Your task to perform on an android device: Search for the new Air Jordan 13 on Nike.com Image 0: 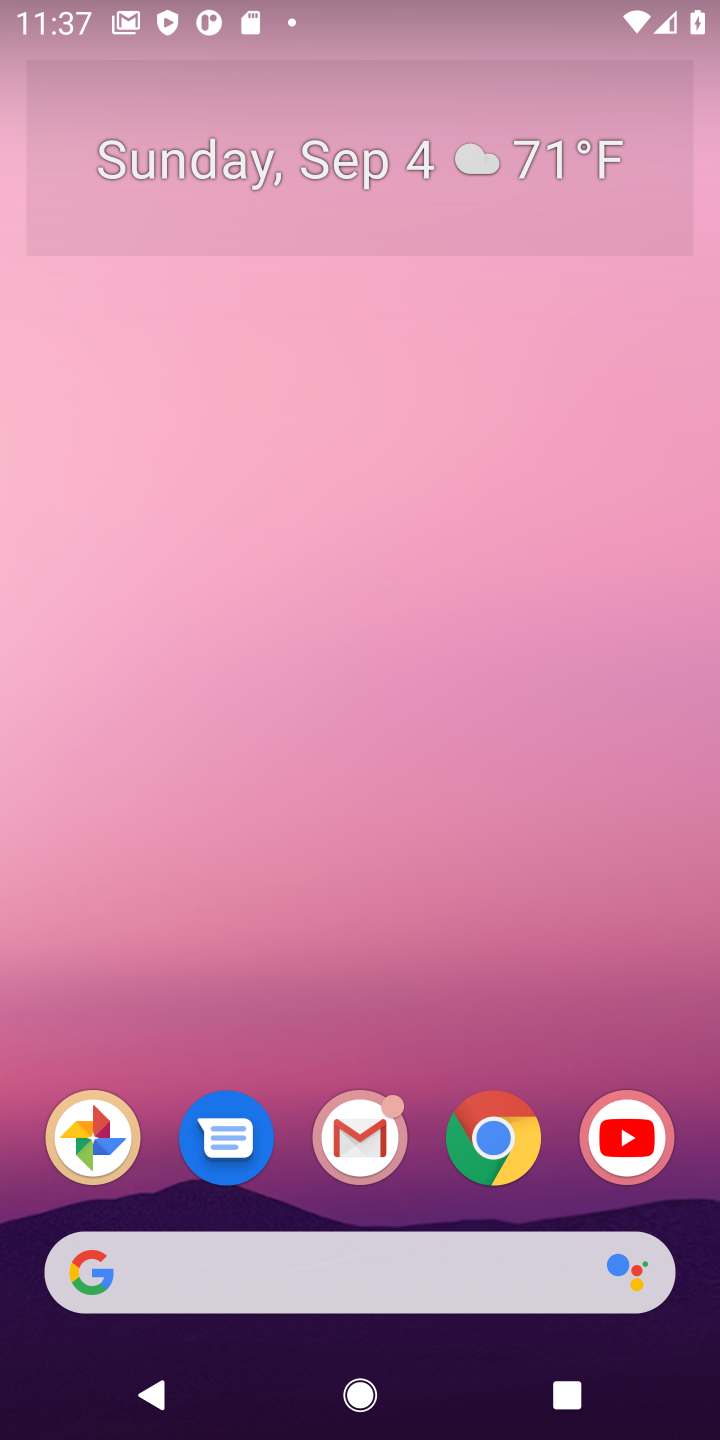
Step 0: click (483, 1146)
Your task to perform on an android device: Search for the new Air Jordan 13 on Nike.com Image 1: 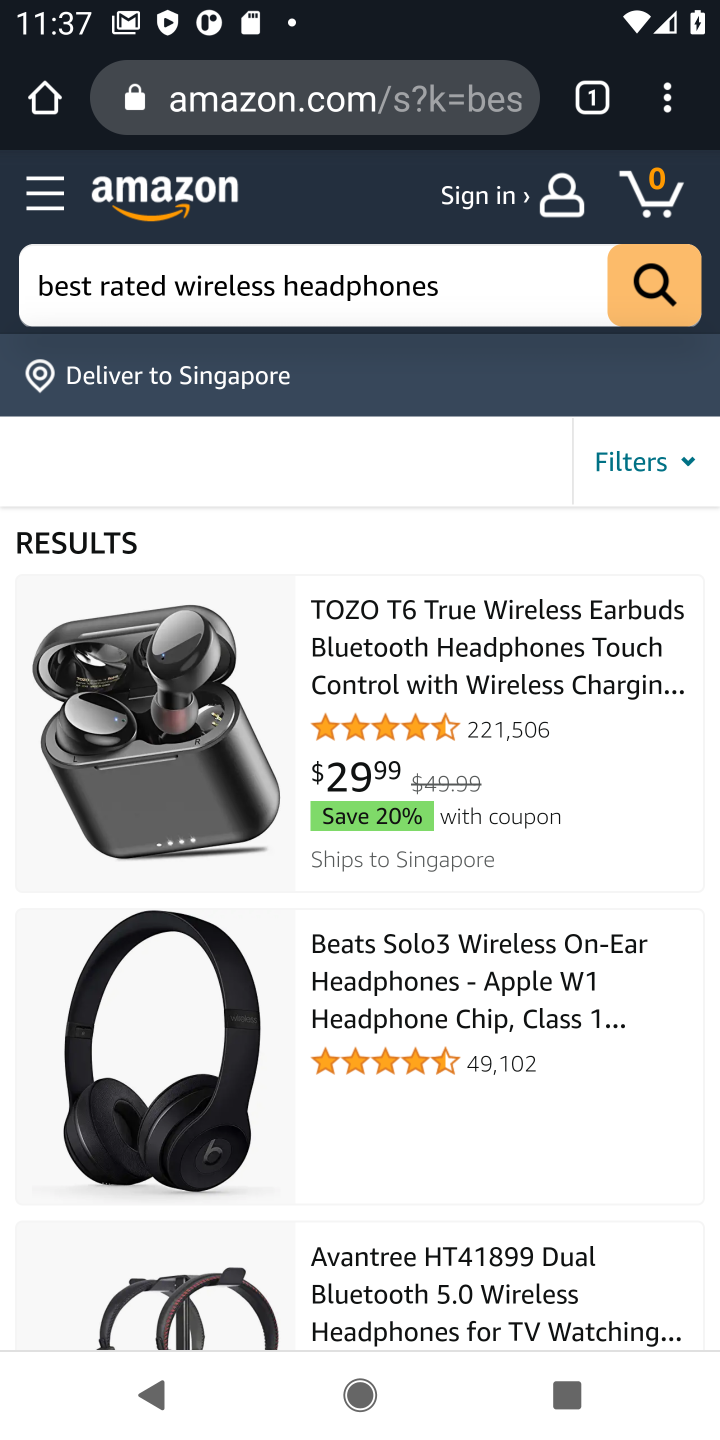
Step 1: click (382, 95)
Your task to perform on an android device: Search for the new Air Jordan 13 on Nike.com Image 2: 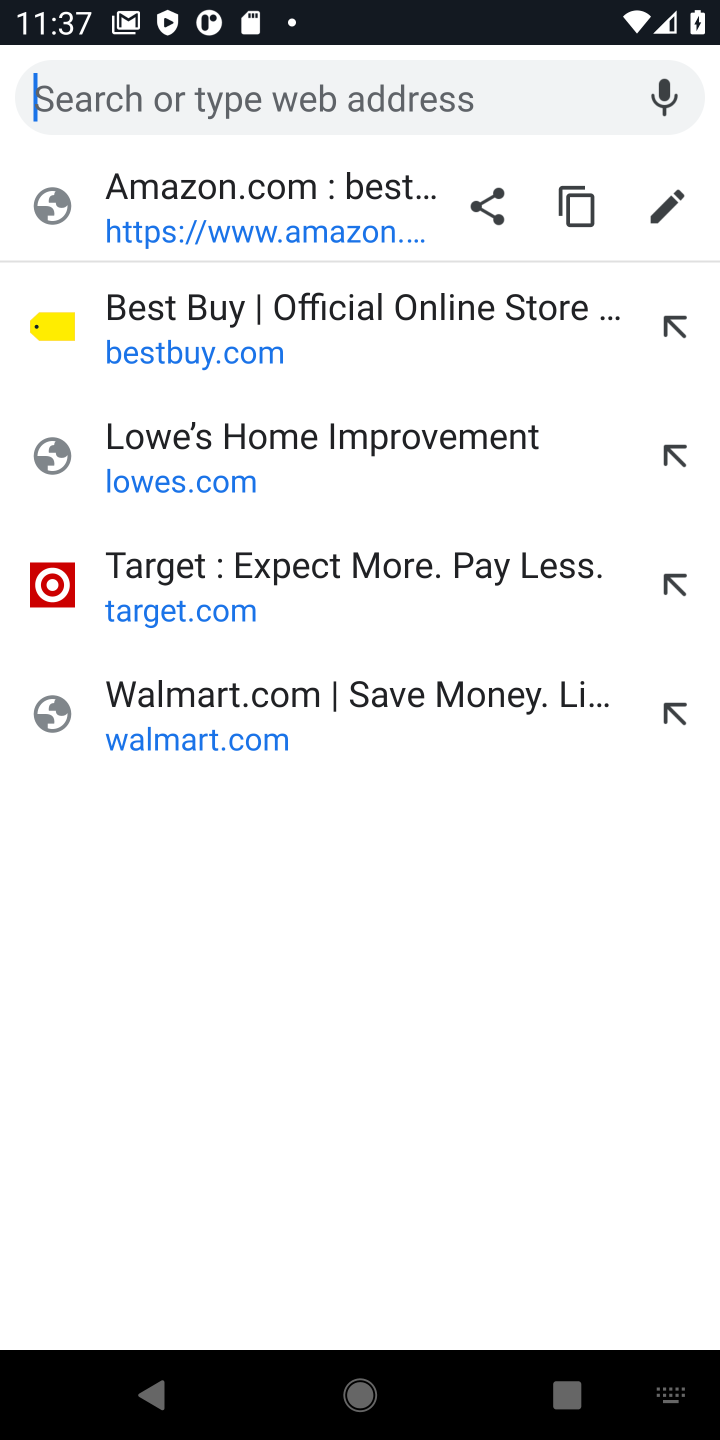
Step 2: type "nike.com"
Your task to perform on an android device: Search for the new Air Jordan 13 on Nike.com Image 3: 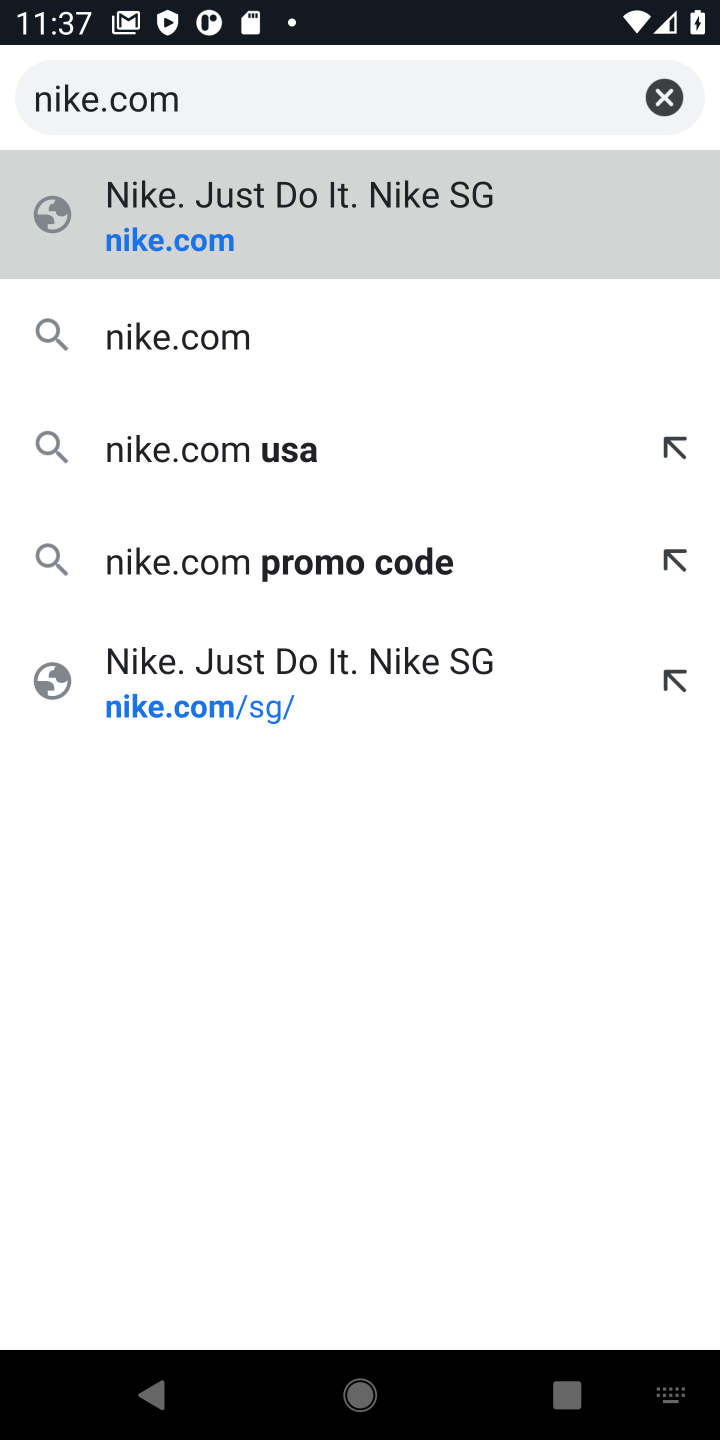
Step 3: click (433, 202)
Your task to perform on an android device: Search for the new Air Jordan 13 on Nike.com Image 4: 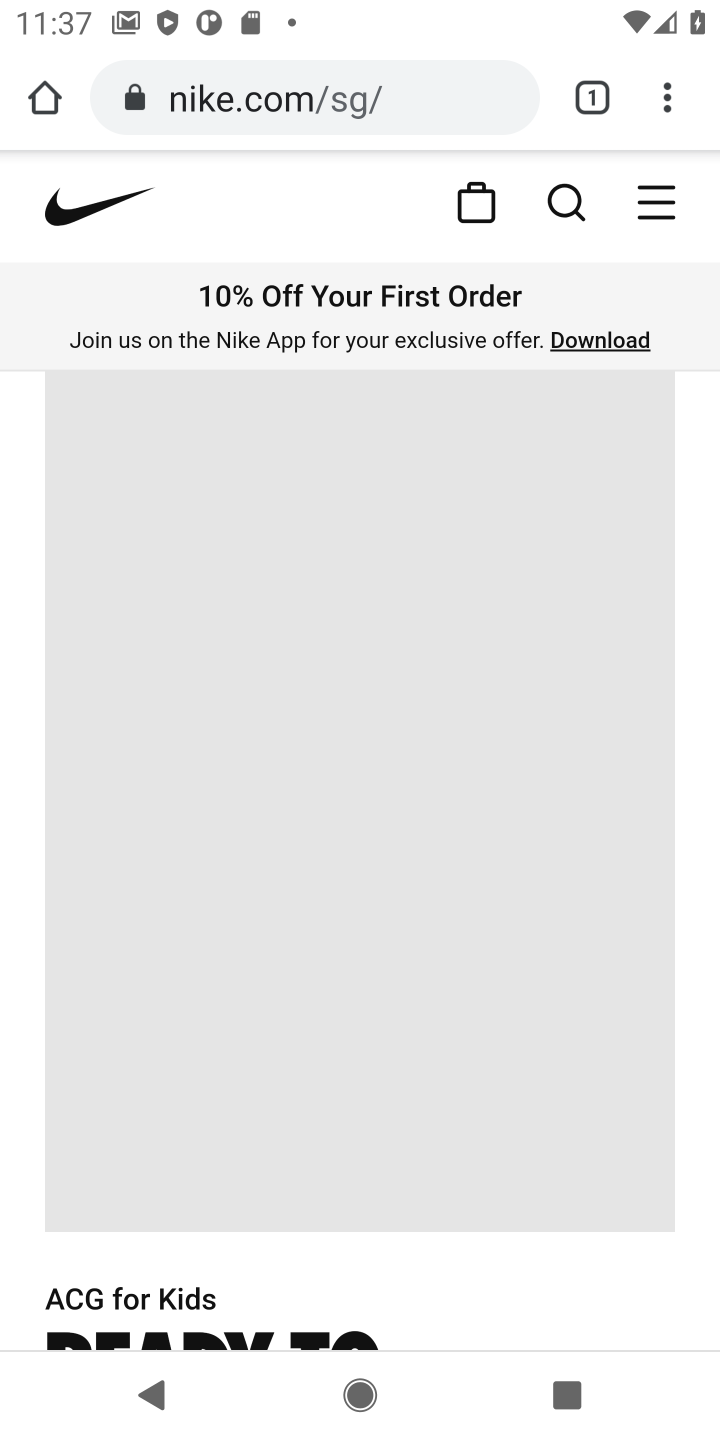
Step 4: click (562, 206)
Your task to perform on an android device: Search for the new Air Jordan 13 on Nike.com Image 5: 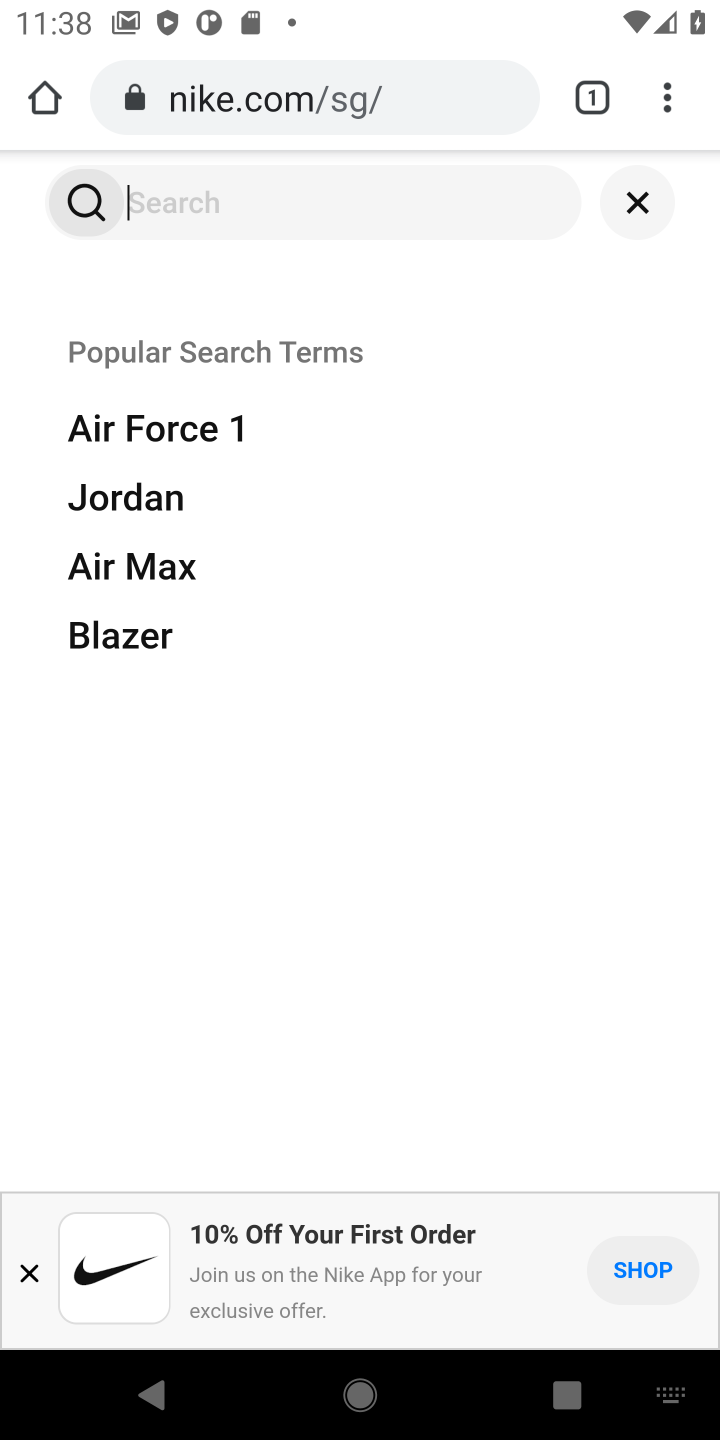
Step 5: type "nike air jordan 13"
Your task to perform on an android device: Search for the new Air Jordan 13 on Nike.com Image 6: 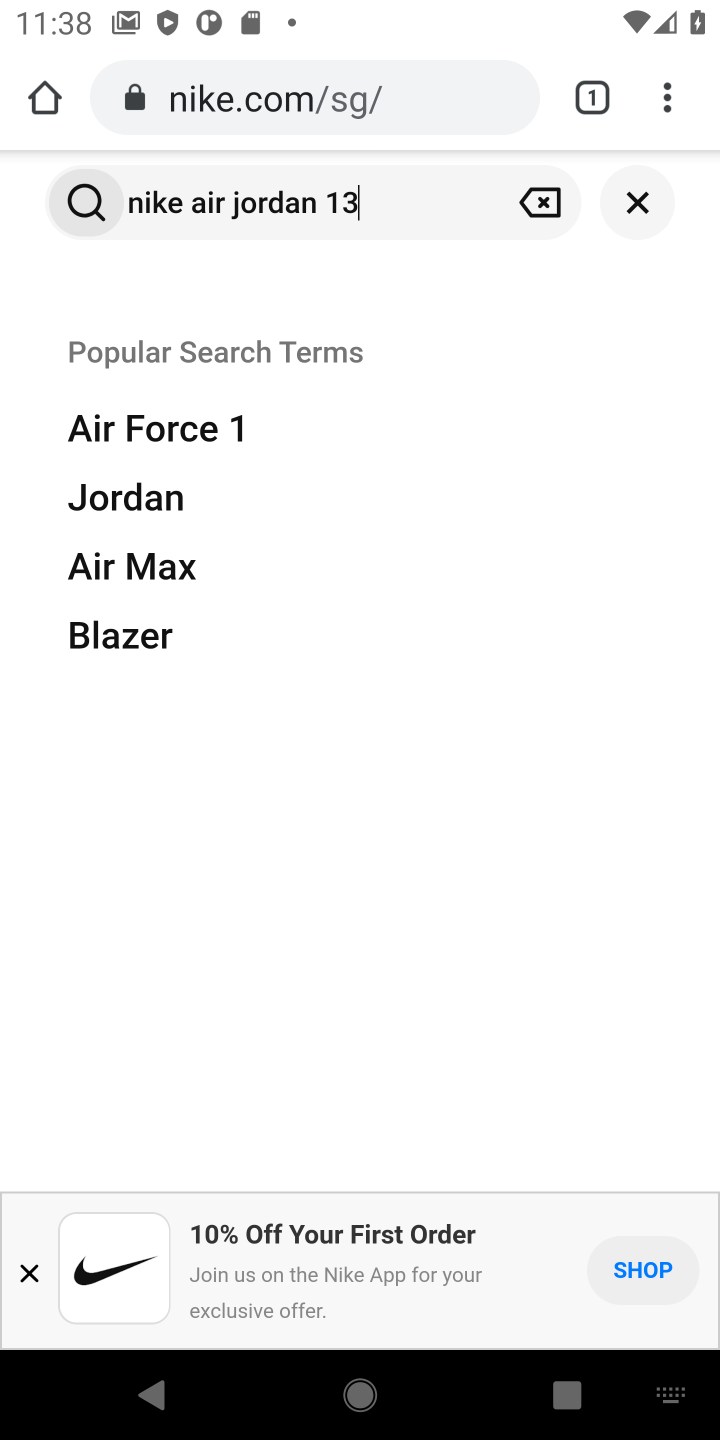
Step 6: press enter
Your task to perform on an android device: Search for the new Air Jordan 13 on Nike.com Image 7: 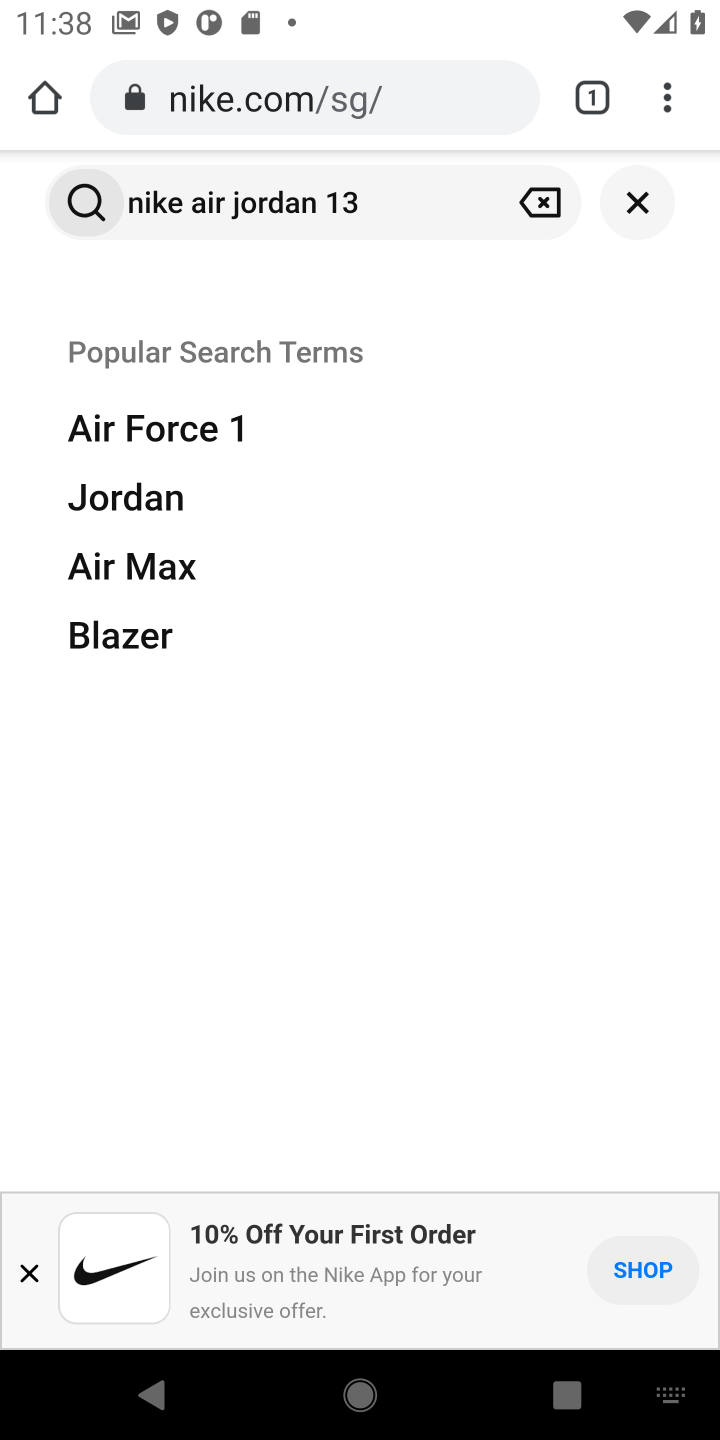
Step 7: type "]"
Your task to perform on an android device: Search for the new Air Jordan 13 on Nike.com Image 8: 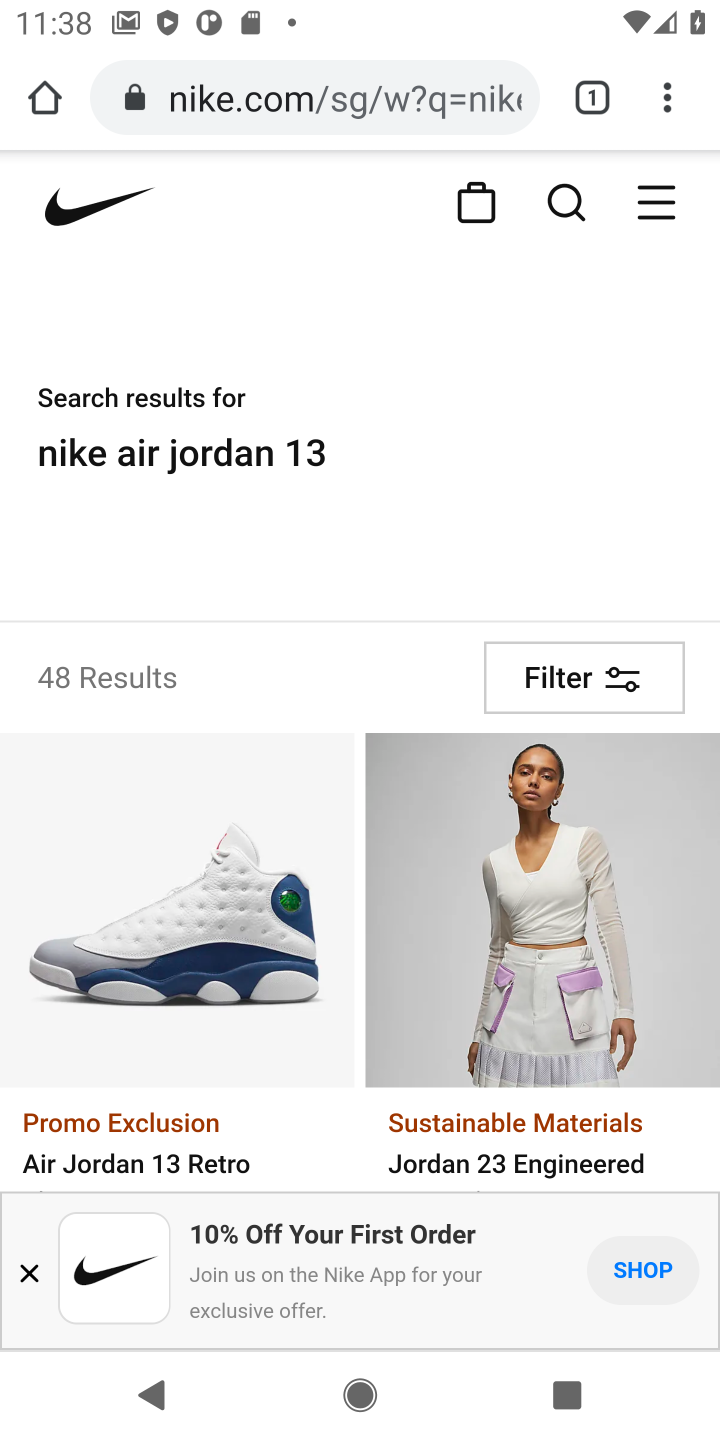
Step 8: task complete